Your task to perform on an android device: turn off location history Image 0: 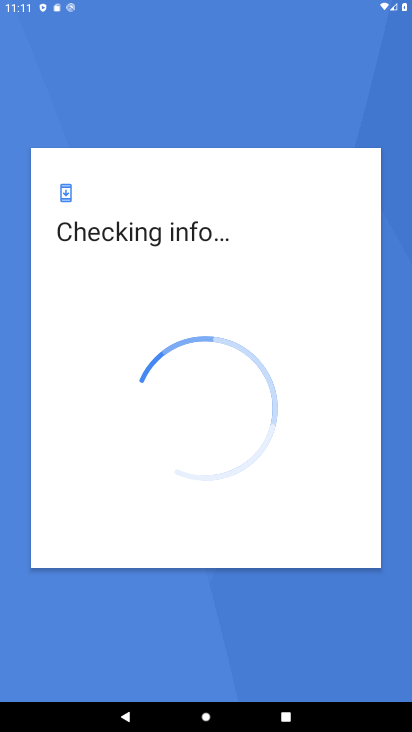
Step 0: press home button
Your task to perform on an android device: turn off location history Image 1: 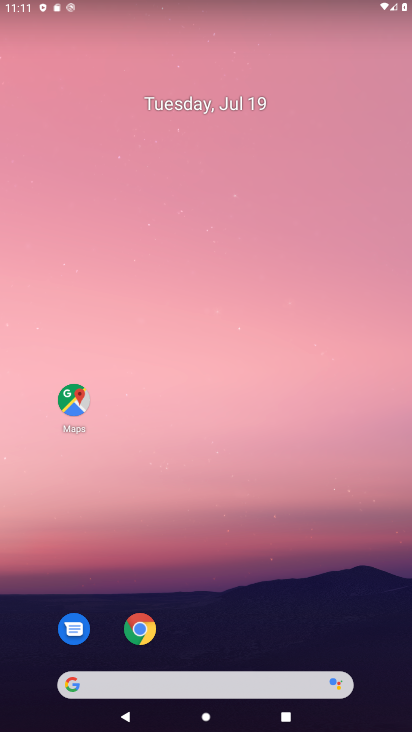
Step 1: drag from (326, 586) to (354, 220)
Your task to perform on an android device: turn off location history Image 2: 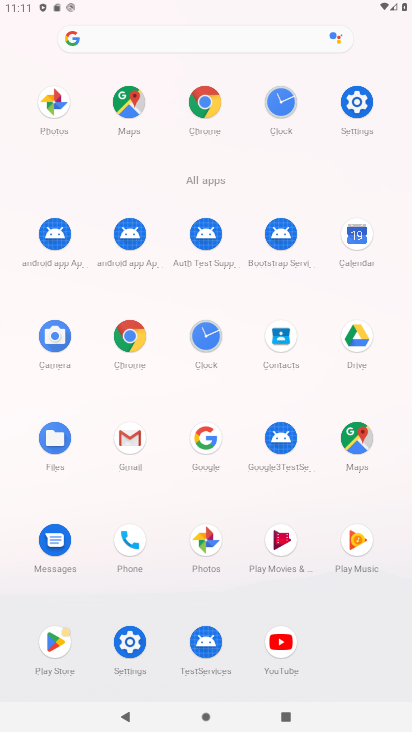
Step 2: click (350, 110)
Your task to perform on an android device: turn off location history Image 3: 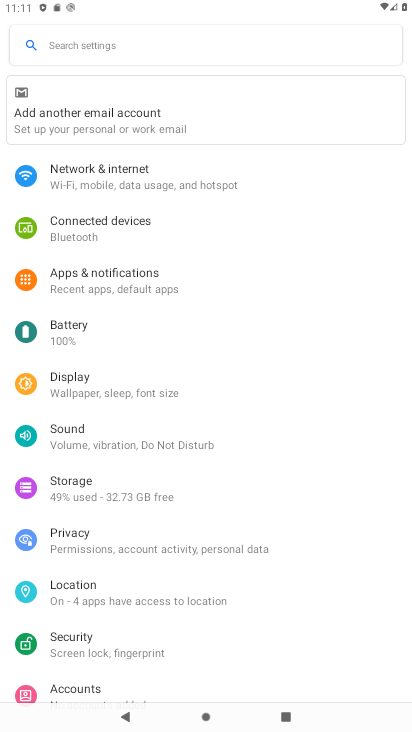
Step 3: drag from (344, 310) to (349, 413)
Your task to perform on an android device: turn off location history Image 4: 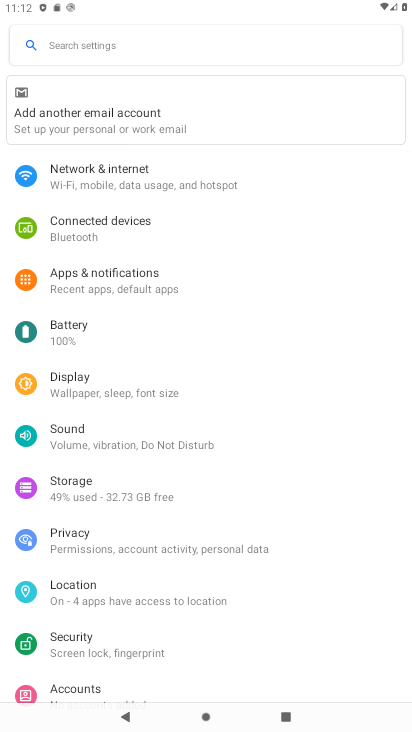
Step 4: drag from (343, 534) to (344, 370)
Your task to perform on an android device: turn off location history Image 5: 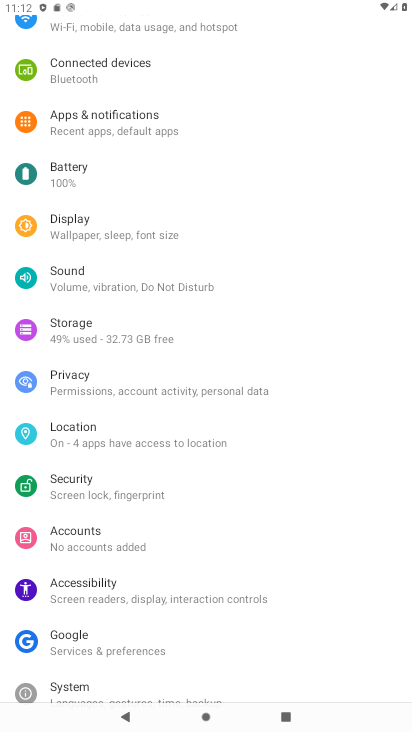
Step 5: drag from (353, 533) to (355, 434)
Your task to perform on an android device: turn off location history Image 6: 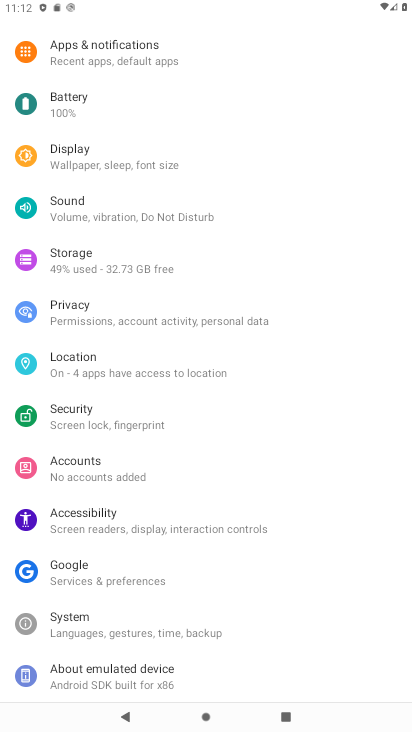
Step 6: click (214, 381)
Your task to perform on an android device: turn off location history Image 7: 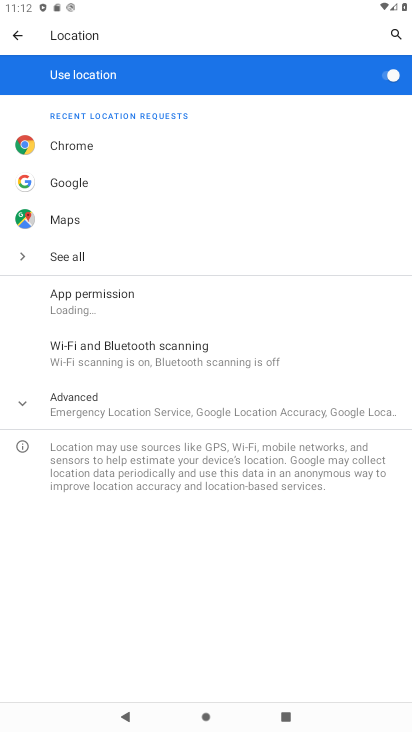
Step 7: click (214, 400)
Your task to perform on an android device: turn off location history Image 8: 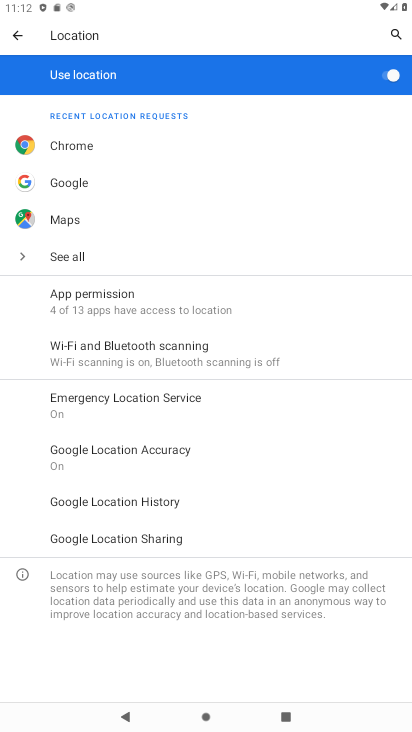
Step 8: click (176, 503)
Your task to perform on an android device: turn off location history Image 9: 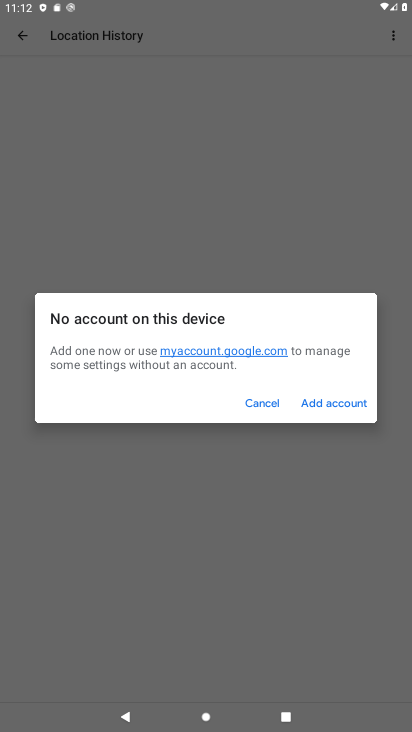
Step 9: click (255, 403)
Your task to perform on an android device: turn off location history Image 10: 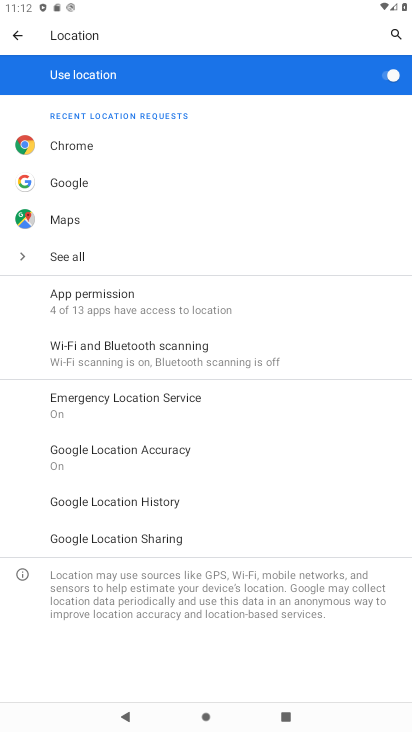
Step 10: task complete